Your task to perform on an android device: Open wifi settings Image 0: 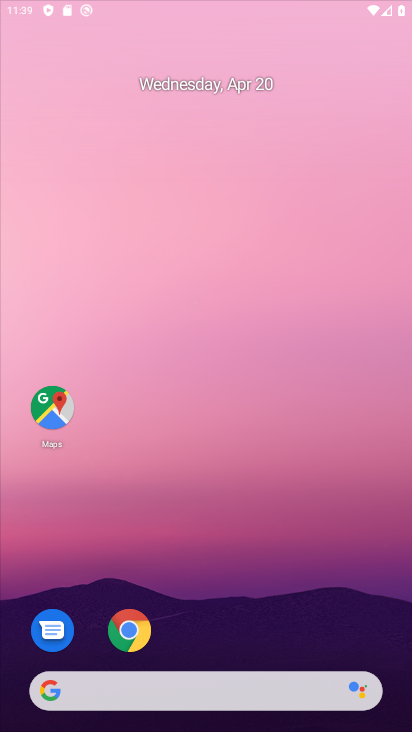
Step 0: drag from (333, 128) to (126, 628)
Your task to perform on an android device: Open wifi settings Image 1: 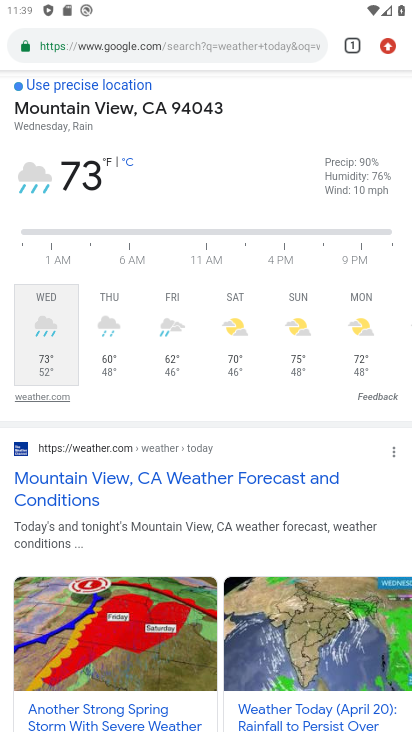
Step 1: drag from (204, 175) to (302, 711)
Your task to perform on an android device: Open wifi settings Image 2: 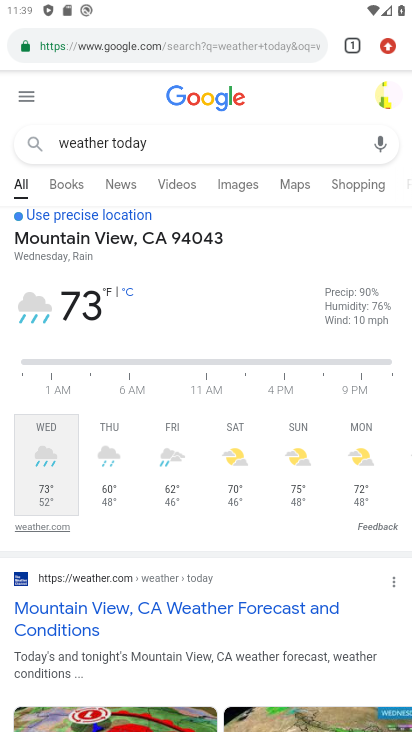
Step 2: press home button
Your task to perform on an android device: Open wifi settings Image 3: 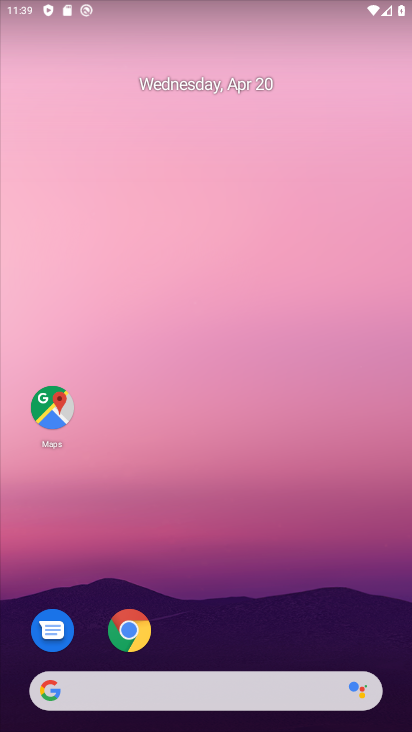
Step 3: drag from (205, 610) to (283, 167)
Your task to perform on an android device: Open wifi settings Image 4: 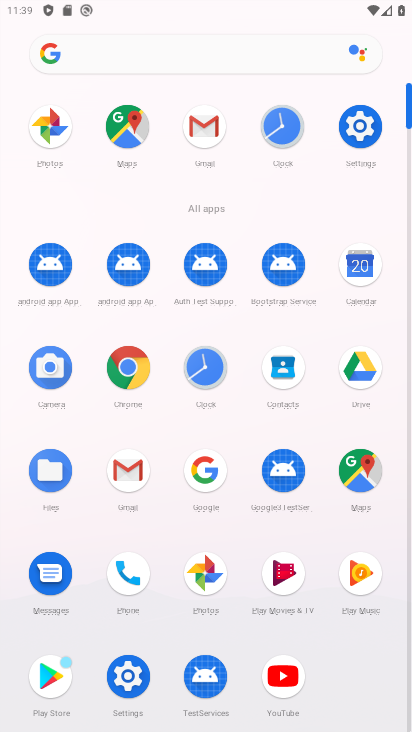
Step 4: click (340, 143)
Your task to perform on an android device: Open wifi settings Image 5: 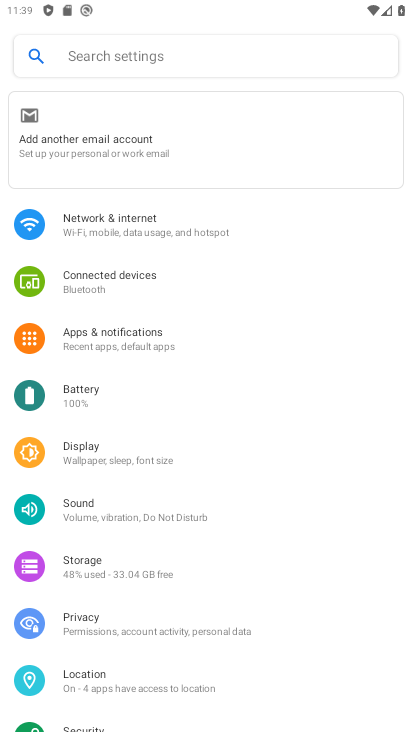
Step 5: drag from (147, 620) to (244, 270)
Your task to perform on an android device: Open wifi settings Image 6: 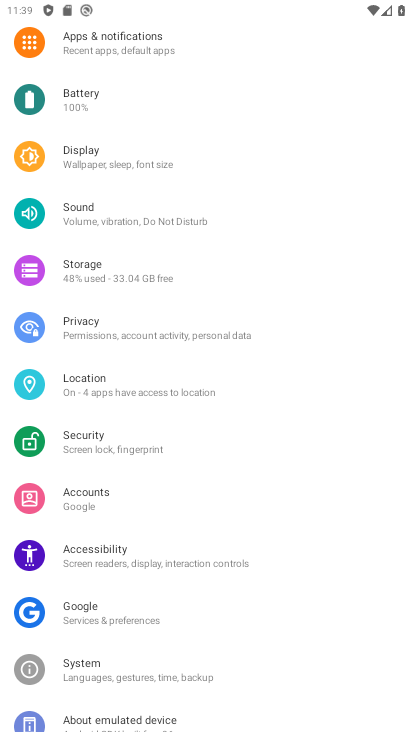
Step 6: drag from (199, 295) to (251, 593)
Your task to perform on an android device: Open wifi settings Image 7: 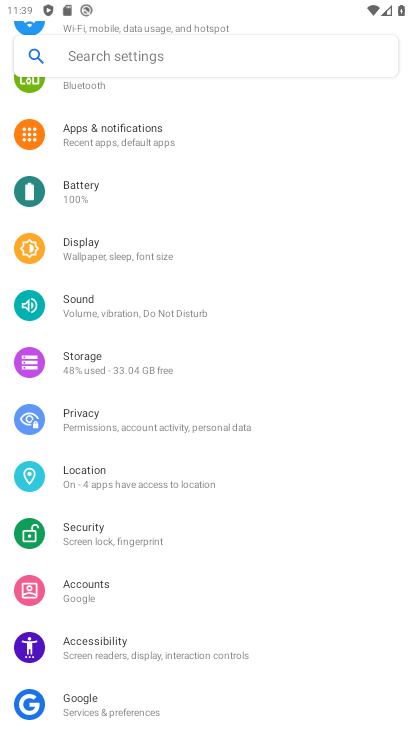
Step 7: drag from (140, 118) to (273, 497)
Your task to perform on an android device: Open wifi settings Image 8: 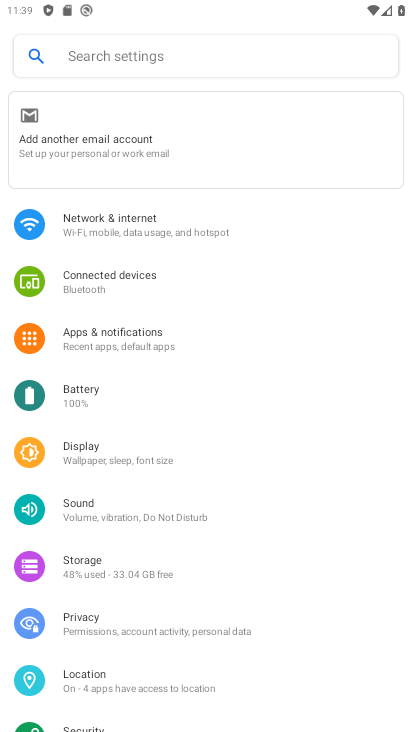
Step 8: click (125, 228)
Your task to perform on an android device: Open wifi settings Image 9: 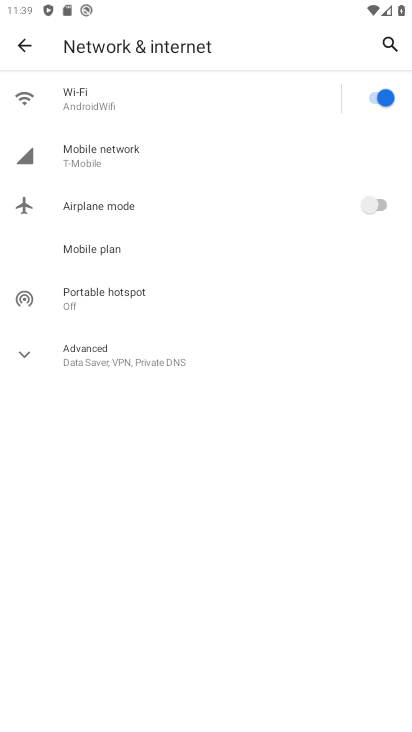
Step 9: click (223, 106)
Your task to perform on an android device: Open wifi settings Image 10: 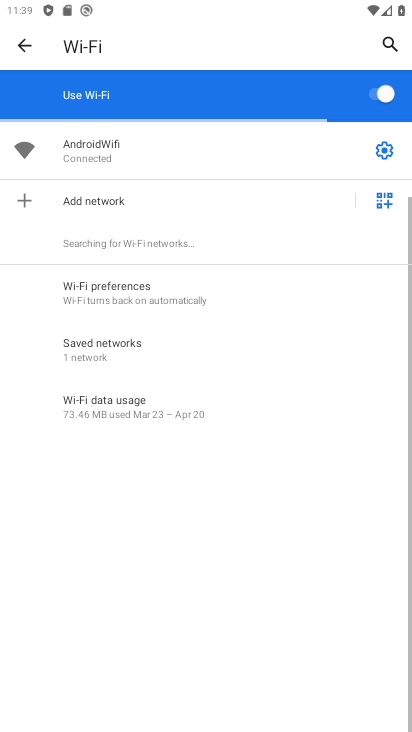
Step 10: task complete